Your task to perform on an android device: Open the Play Movies app and select the watchlist tab. Image 0: 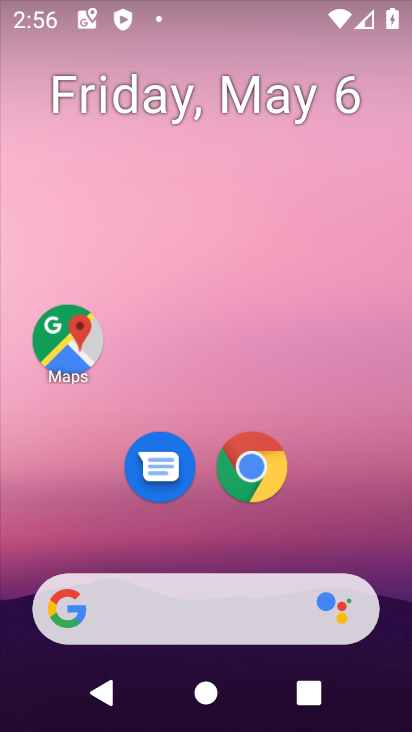
Step 0: drag from (186, 545) to (279, 116)
Your task to perform on an android device: Open the Play Movies app and select the watchlist tab. Image 1: 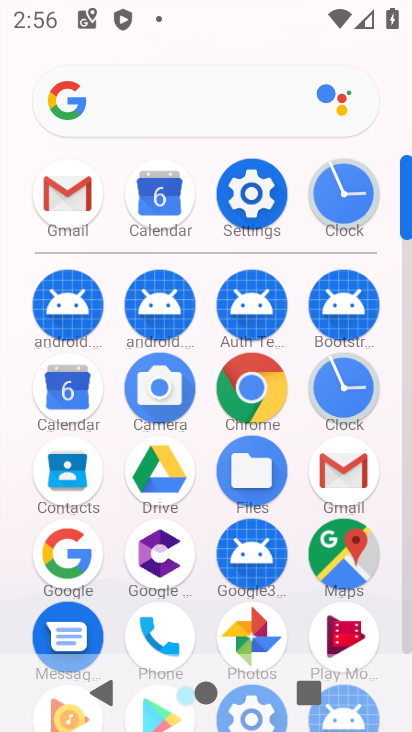
Step 1: drag from (228, 587) to (302, 143)
Your task to perform on an android device: Open the Play Movies app and select the watchlist tab. Image 2: 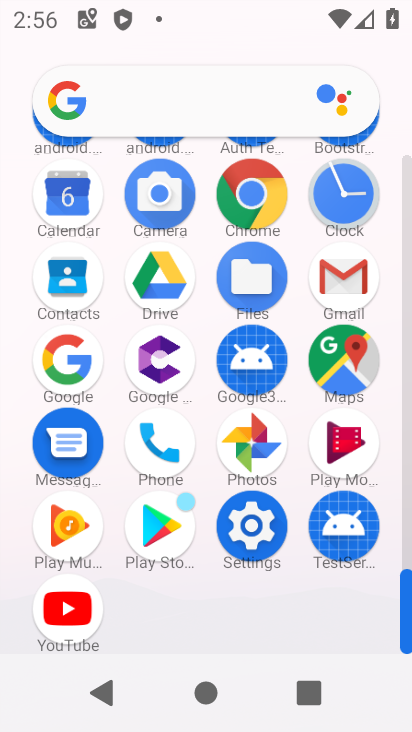
Step 2: click (343, 455)
Your task to perform on an android device: Open the Play Movies app and select the watchlist tab. Image 3: 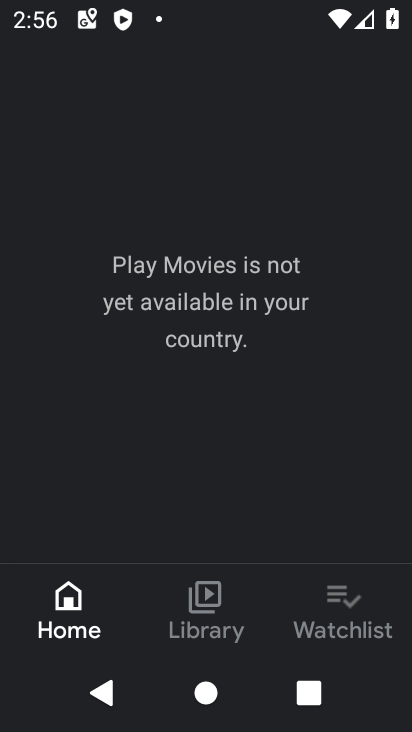
Step 3: task complete